Your task to perform on an android device: turn on priority inbox in the gmail app Image 0: 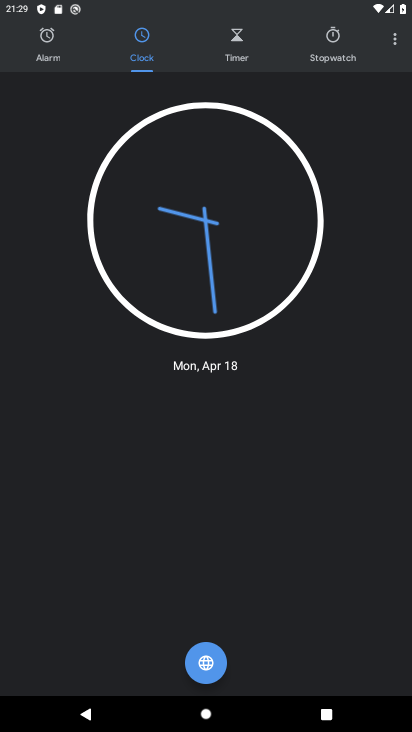
Step 0: press home button
Your task to perform on an android device: turn on priority inbox in the gmail app Image 1: 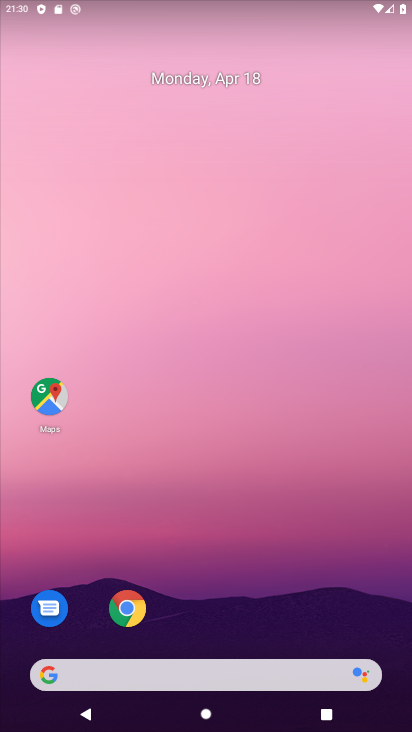
Step 1: drag from (250, 530) to (262, 73)
Your task to perform on an android device: turn on priority inbox in the gmail app Image 2: 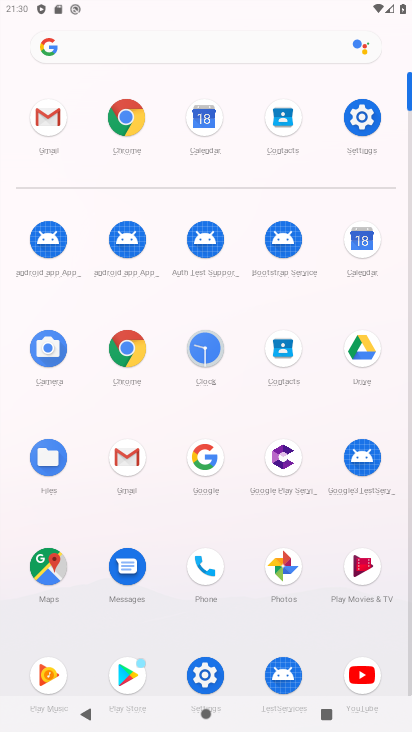
Step 2: click (48, 115)
Your task to perform on an android device: turn on priority inbox in the gmail app Image 3: 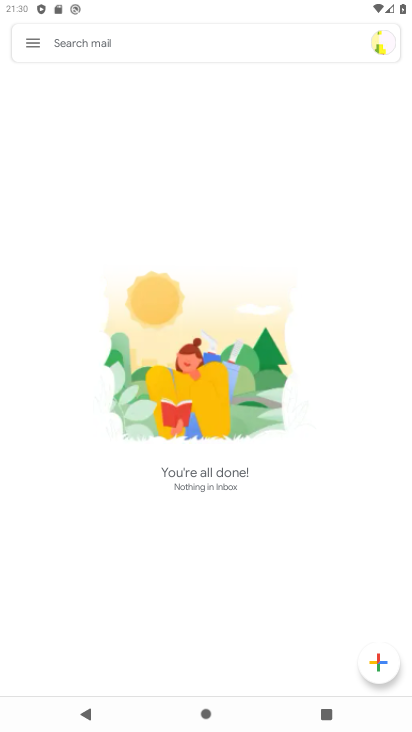
Step 3: click (35, 39)
Your task to perform on an android device: turn on priority inbox in the gmail app Image 4: 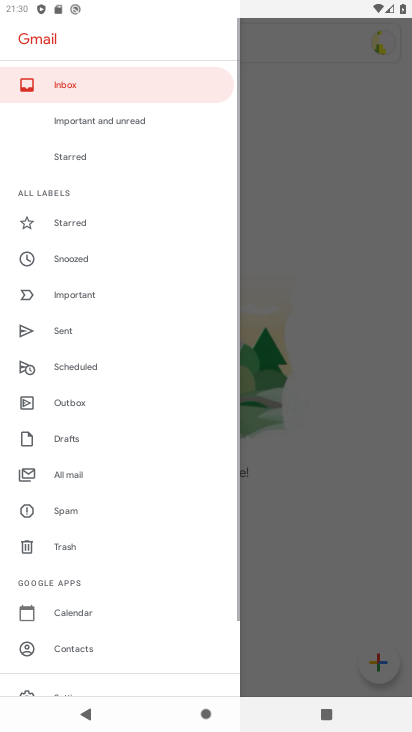
Step 4: drag from (132, 508) to (140, 148)
Your task to perform on an android device: turn on priority inbox in the gmail app Image 5: 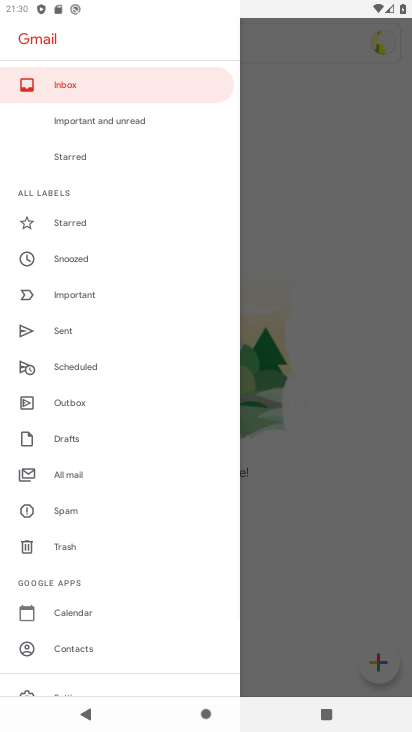
Step 5: drag from (75, 554) to (119, 266)
Your task to perform on an android device: turn on priority inbox in the gmail app Image 6: 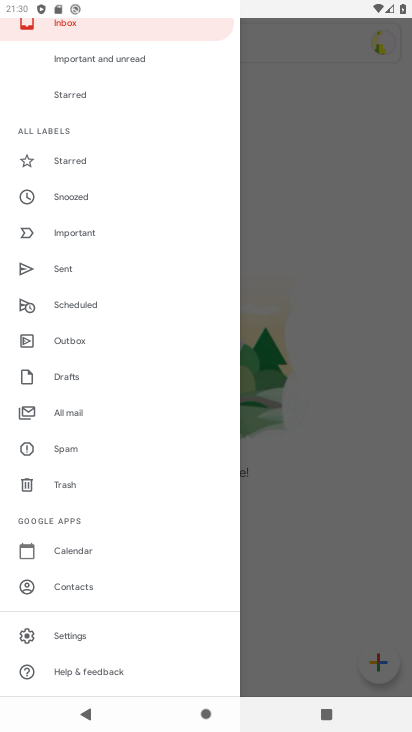
Step 6: click (79, 629)
Your task to perform on an android device: turn on priority inbox in the gmail app Image 7: 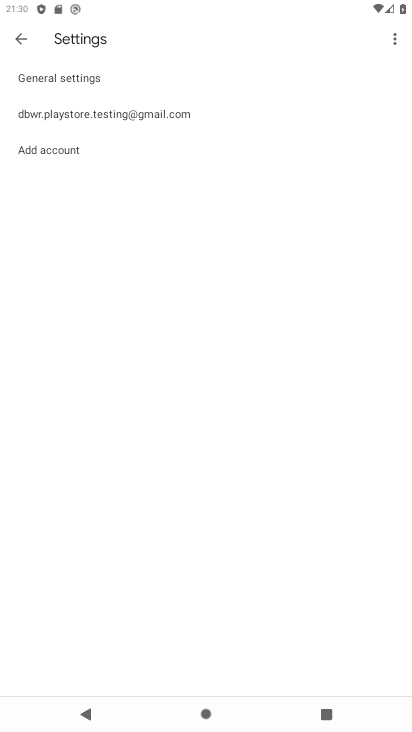
Step 7: click (101, 105)
Your task to perform on an android device: turn on priority inbox in the gmail app Image 8: 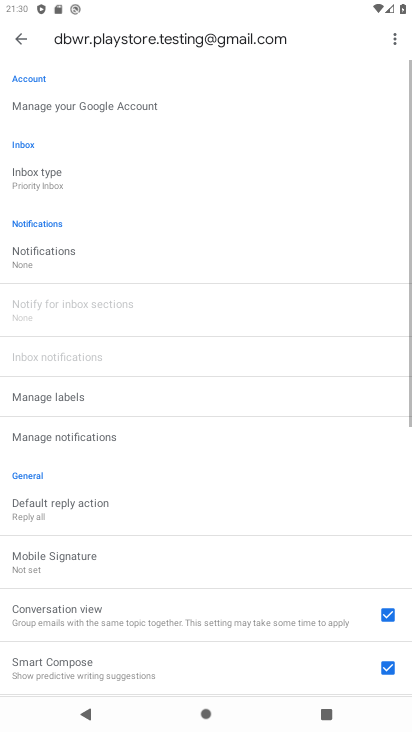
Step 8: drag from (251, 580) to (265, 206)
Your task to perform on an android device: turn on priority inbox in the gmail app Image 9: 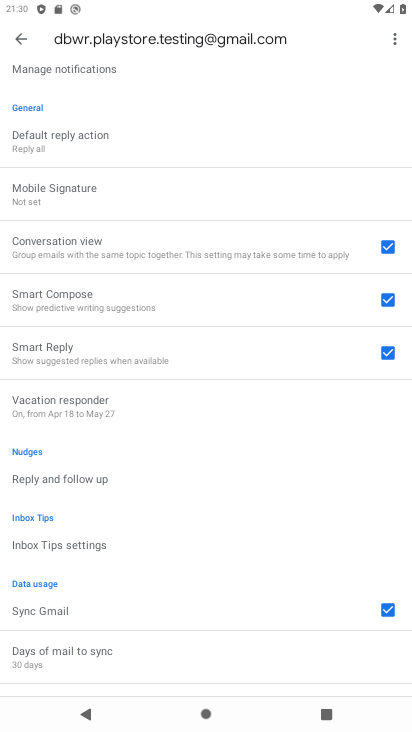
Step 9: drag from (244, 567) to (266, 252)
Your task to perform on an android device: turn on priority inbox in the gmail app Image 10: 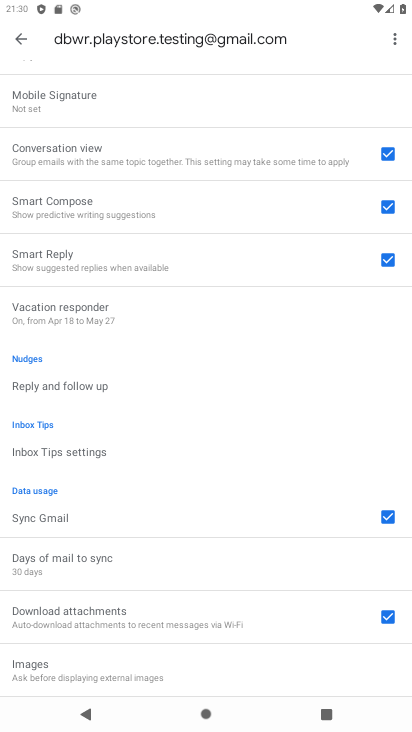
Step 10: drag from (89, 190) to (170, 600)
Your task to perform on an android device: turn on priority inbox in the gmail app Image 11: 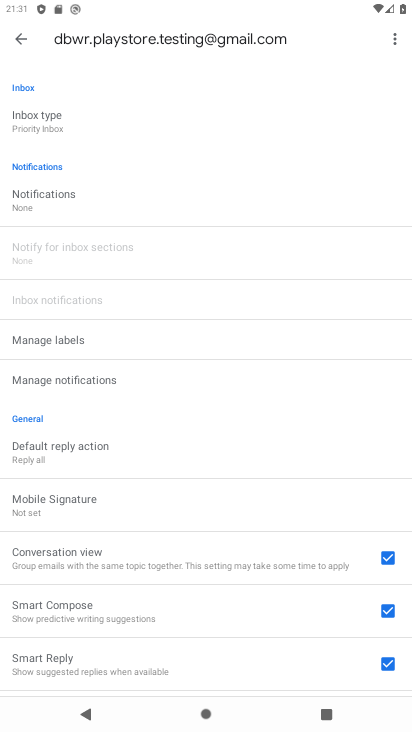
Step 11: click (59, 121)
Your task to perform on an android device: turn on priority inbox in the gmail app Image 12: 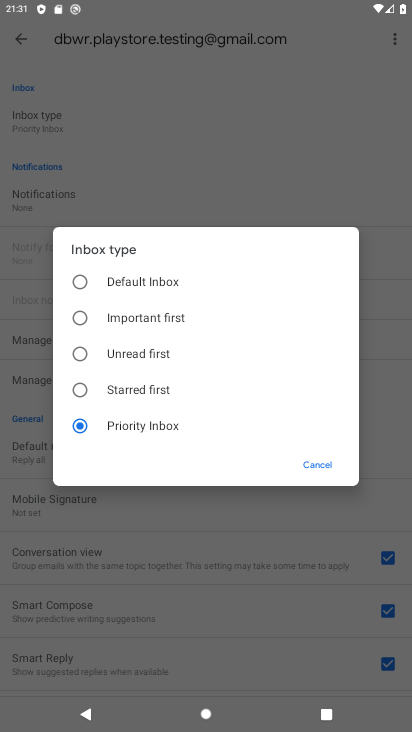
Step 12: click (322, 466)
Your task to perform on an android device: turn on priority inbox in the gmail app Image 13: 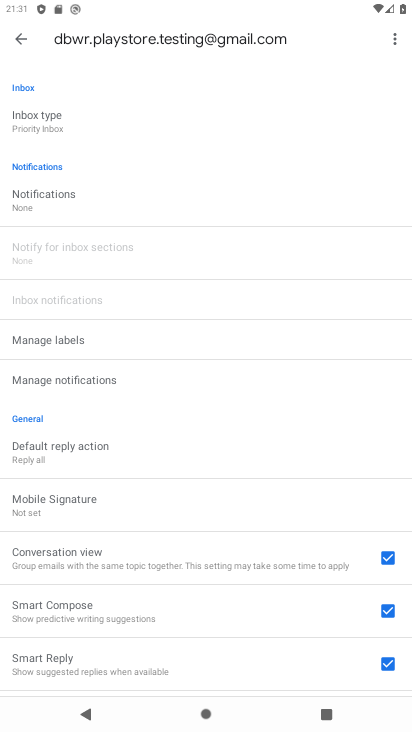
Step 13: task complete